Your task to perform on an android device: clear history in the chrome app Image 0: 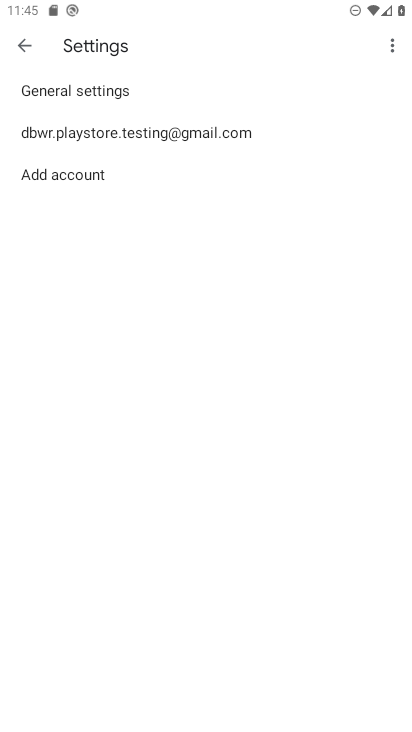
Step 0: press home button
Your task to perform on an android device: clear history in the chrome app Image 1: 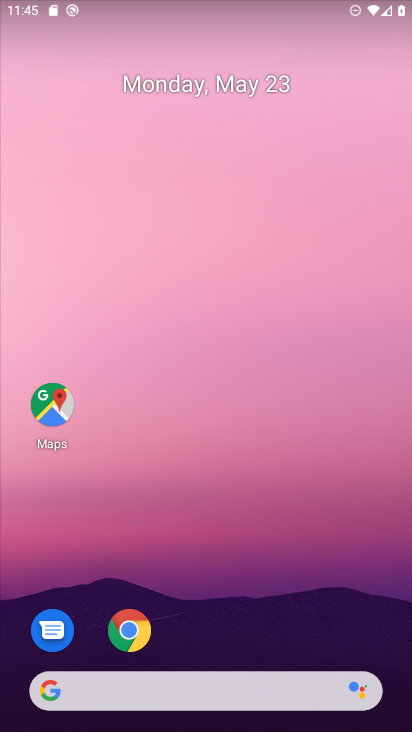
Step 1: click (130, 625)
Your task to perform on an android device: clear history in the chrome app Image 2: 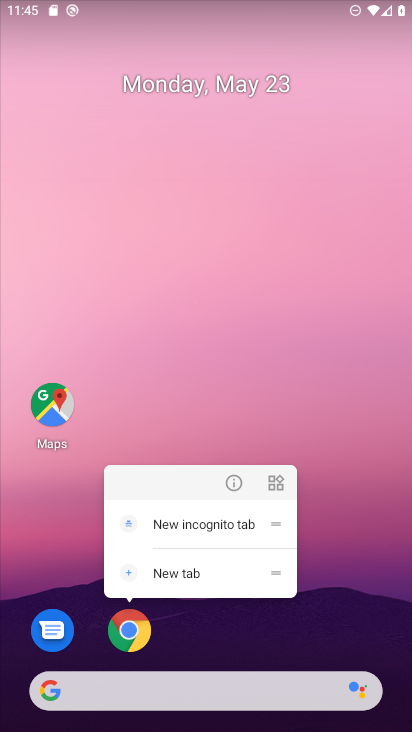
Step 2: click (227, 485)
Your task to perform on an android device: clear history in the chrome app Image 3: 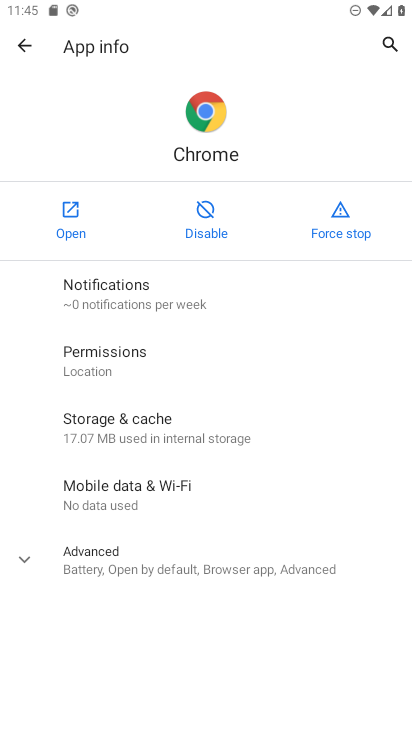
Step 3: click (90, 223)
Your task to perform on an android device: clear history in the chrome app Image 4: 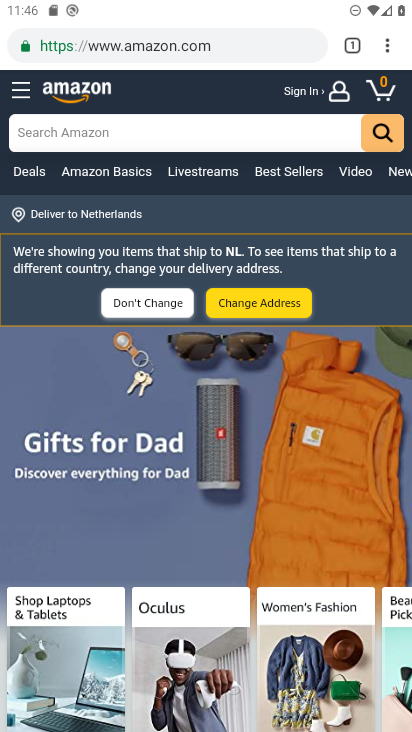
Step 4: click (385, 36)
Your task to perform on an android device: clear history in the chrome app Image 5: 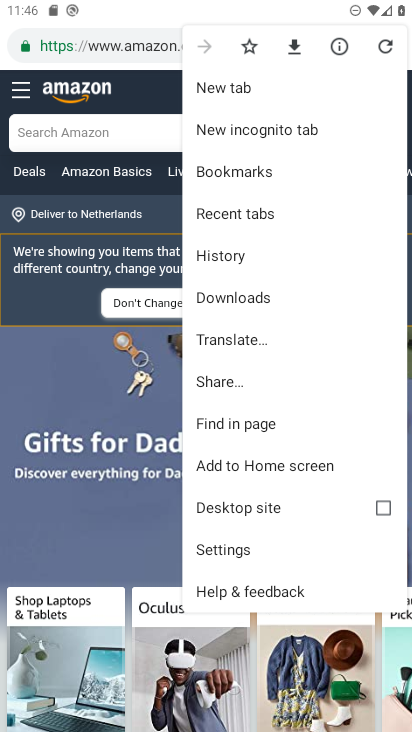
Step 5: click (252, 259)
Your task to perform on an android device: clear history in the chrome app Image 6: 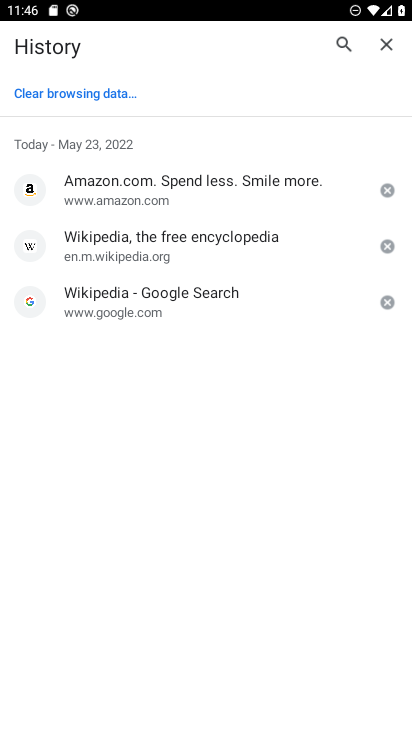
Step 6: click (101, 93)
Your task to perform on an android device: clear history in the chrome app Image 7: 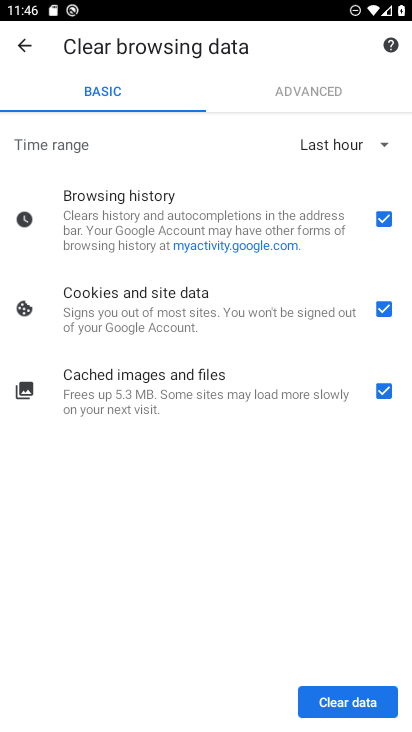
Step 7: click (371, 690)
Your task to perform on an android device: clear history in the chrome app Image 8: 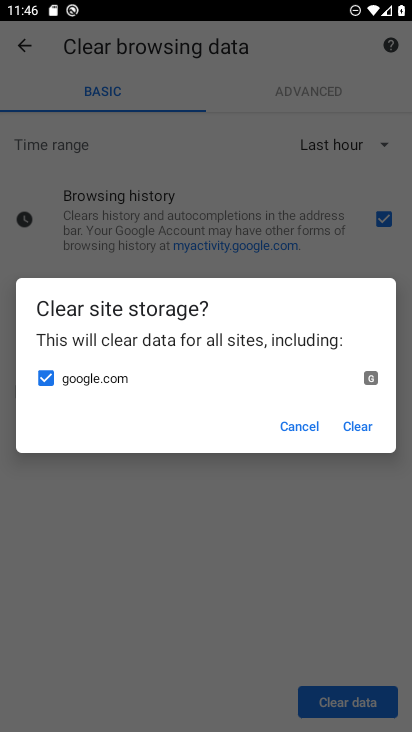
Step 8: task complete